Your task to perform on an android device: all mails in gmail Image 0: 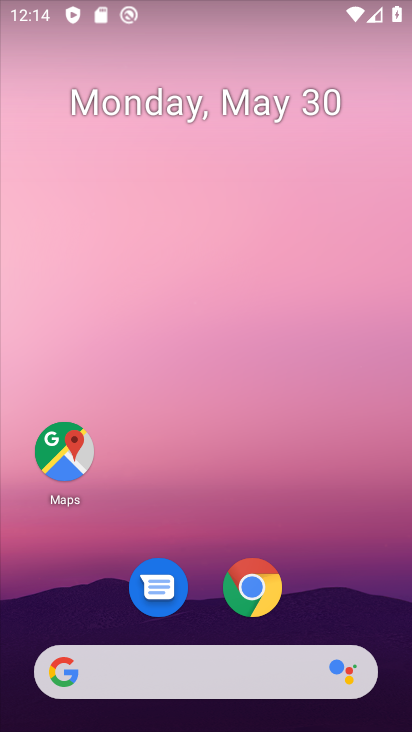
Step 0: drag from (362, 624) to (299, 210)
Your task to perform on an android device: all mails in gmail Image 1: 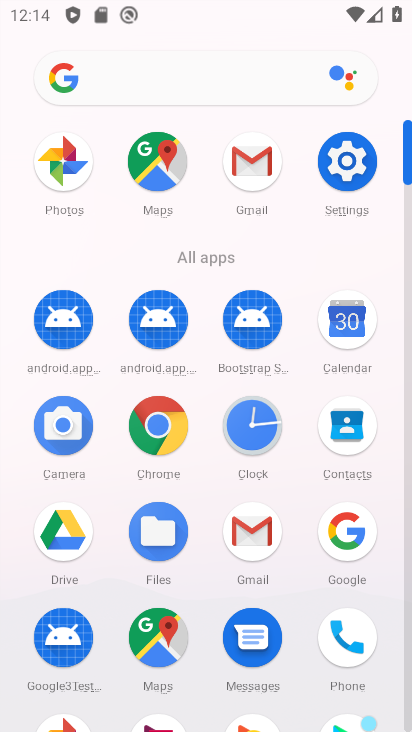
Step 1: click (265, 512)
Your task to perform on an android device: all mails in gmail Image 2: 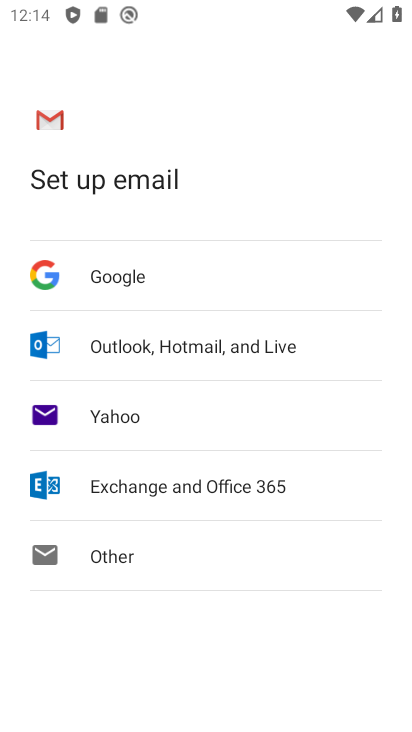
Step 2: press back button
Your task to perform on an android device: all mails in gmail Image 3: 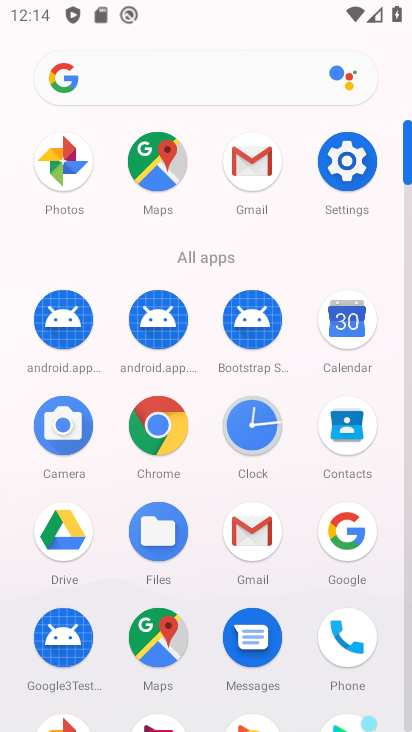
Step 3: click (243, 166)
Your task to perform on an android device: all mails in gmail Image 4: 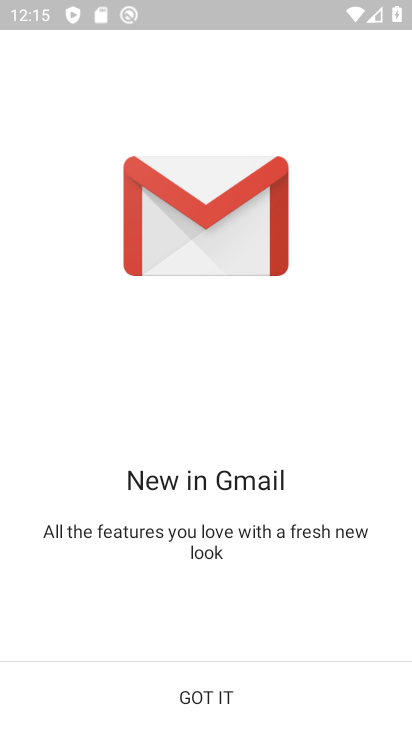
Step 4: click (181, 692)
Your task to perform on an android device: all mails in gmail Image 5: 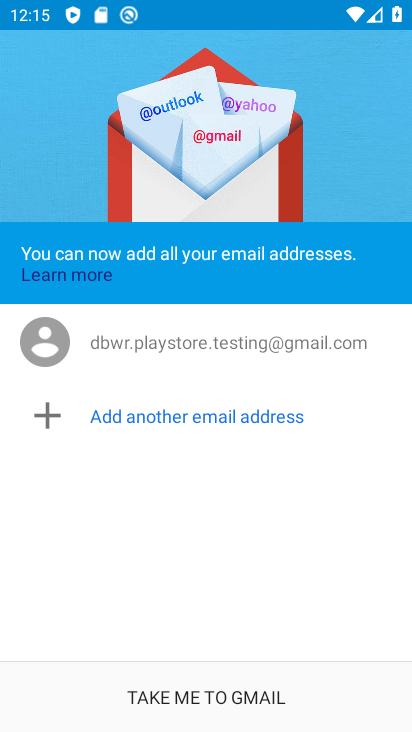
Step 5: click (185, 694)
Your task to perform on an android device: all mails in gmail Image 6: 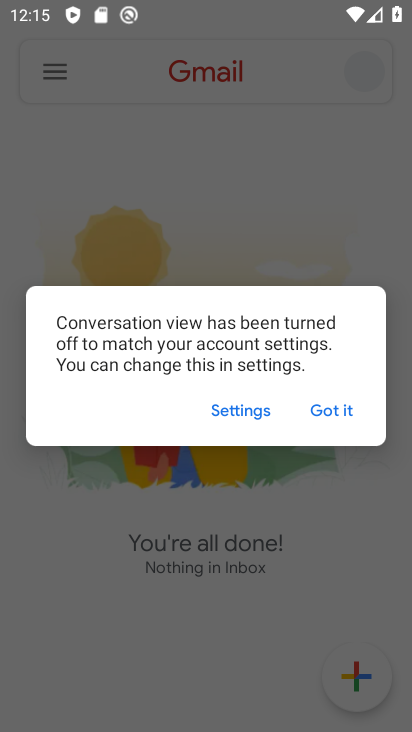
Step 6: click (326, 403)
Your task to perform on an android device: all mails in gmail Image 7: 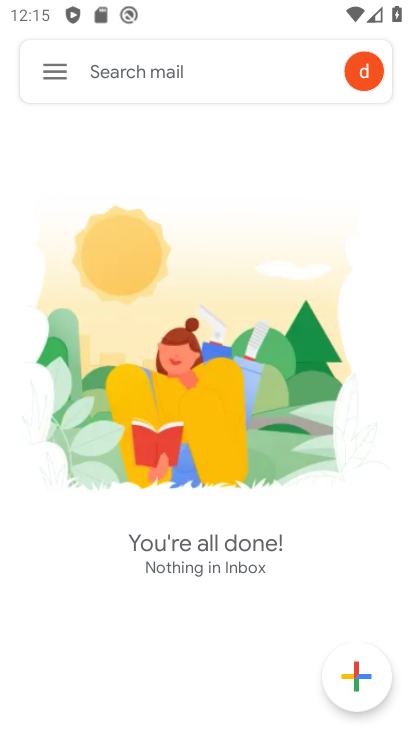
Step 7: click (41, 52)
Your task to perform on an android device: all mails in gmail Image 8: 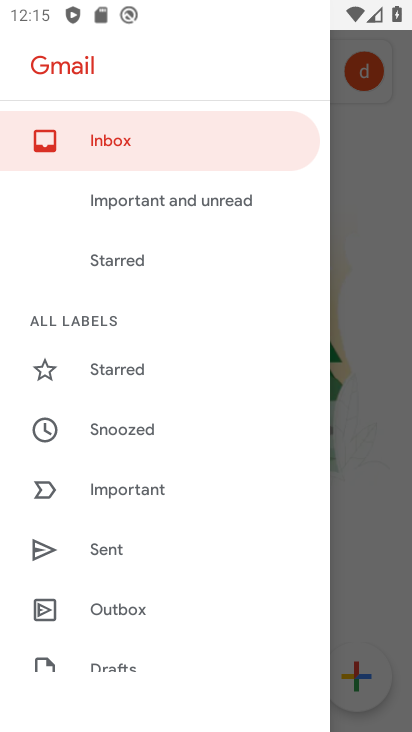
Step 8: drag from (195, 601) to (167, 243)
Your task to perform on an android device: all mails in gmail Image 9: 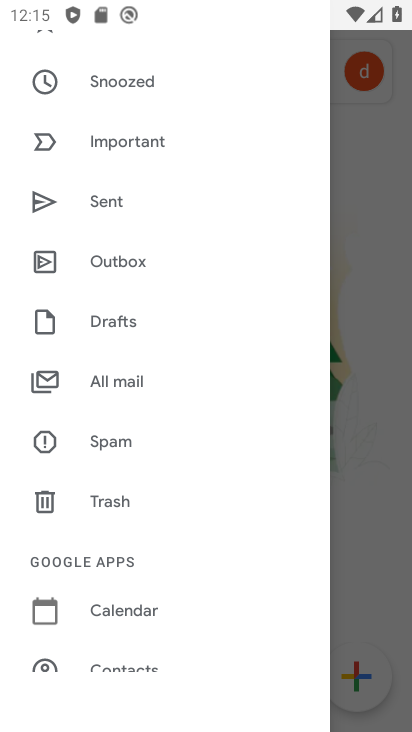
Step 9: click (145, 380)
Your task to perform on an android device: all mails in gmail Image 10: 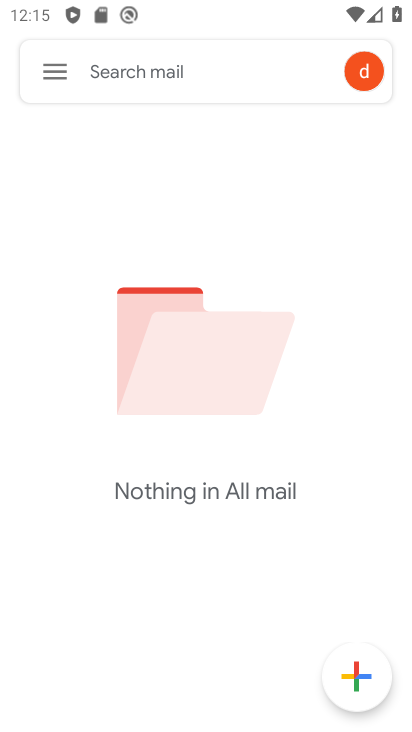
Step 10: task complete